Your task to perform on an android device: change the clock display to digital Image 0: 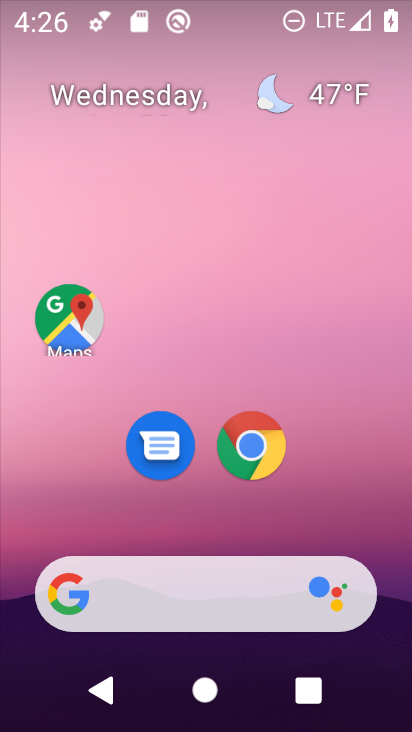
Step 0: drag from (238, 526) to (283, 35)
Your task to perform on an android device: change the clock display to digital Image 1: 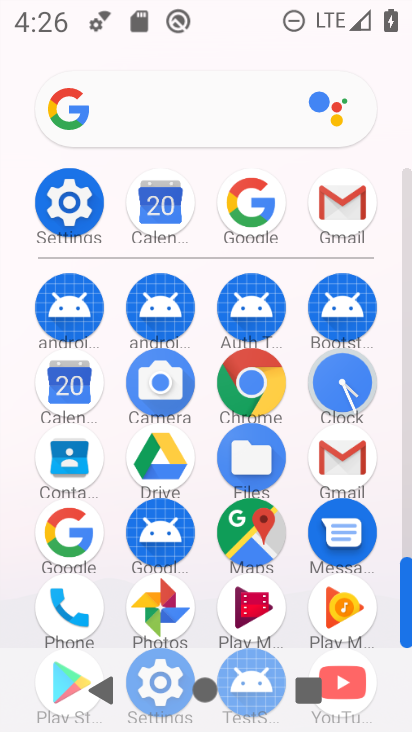
Step 1: click (347, 386)
Your task to perform on an android device: change the clock display to digital Image 2: 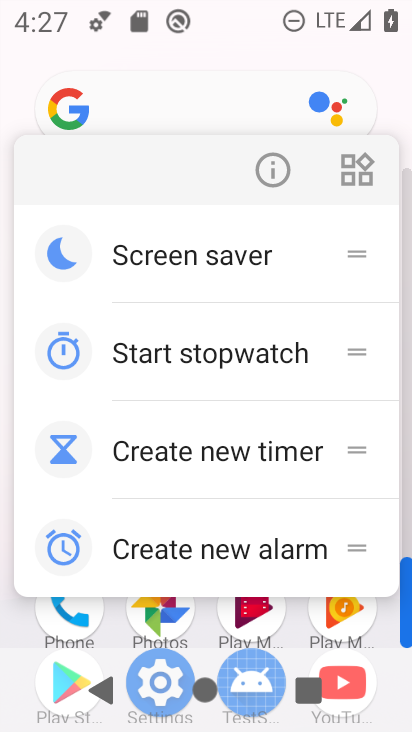
Step 2: click (407, 356)
Your task to perform on an android device: change the clock display to digital Image 3: 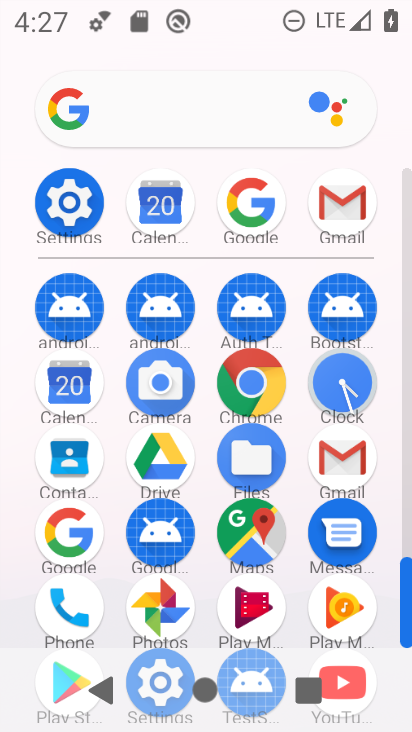
Step 3: click (339, 381)
Your task to perform on an android device: change the clock display to digital Image 4: 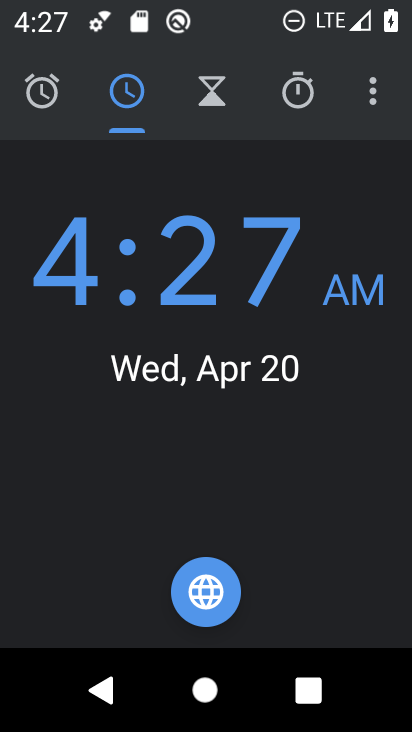
Step 4: click (375, 92)
Your task to perform on an android device: change the clock display to digital Image 5: 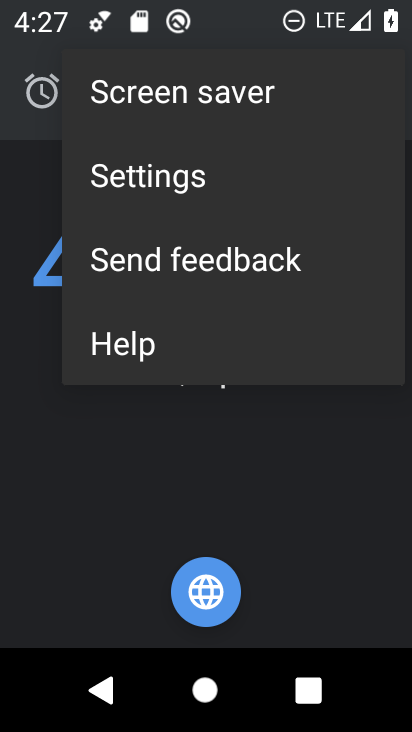
Step 5: click (192, 180)
Your task to perform on an android device: change the clock display to digital Image 6: 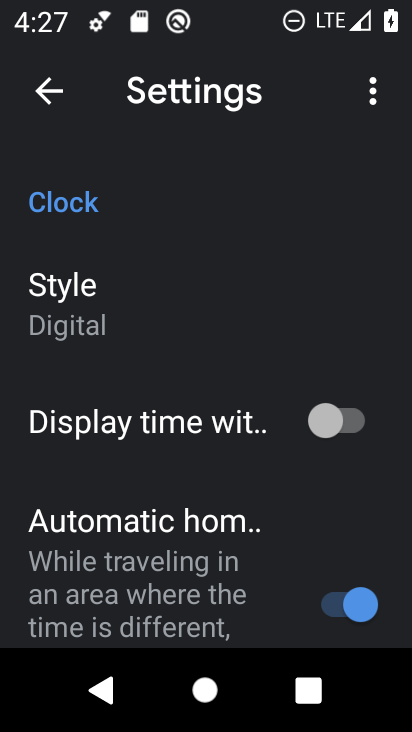
Step 6: click (116, 299)
Your task to perform on an android device: change the clock display to digital Image 7: 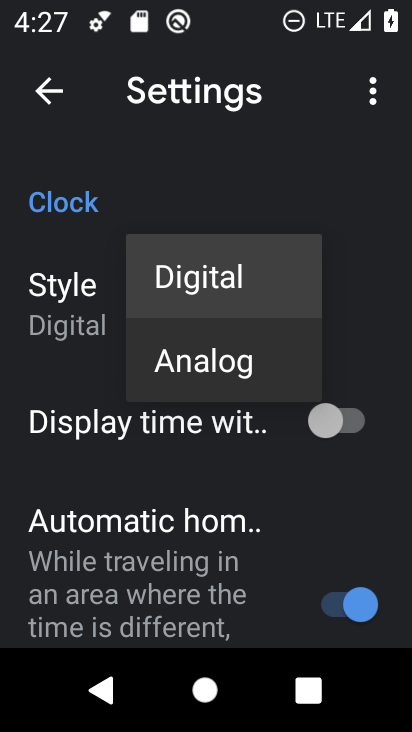
Step 7: click (251, 265)
Your task to perform on an android device: change the clock display to digital Image 8: 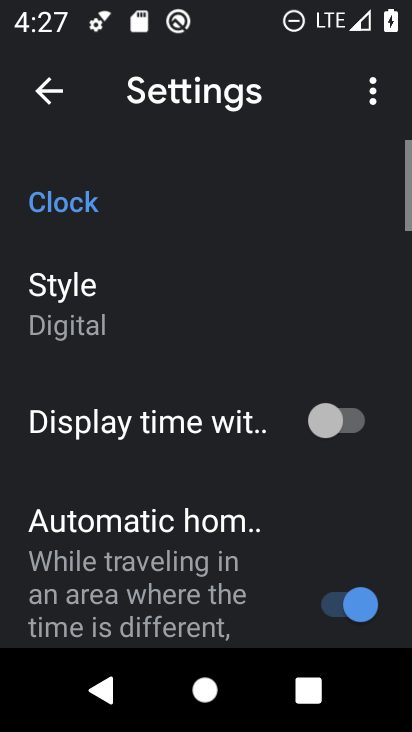
Step 8: task complete